Your task to perform on an android device: Turn off the flashlight Image 0: 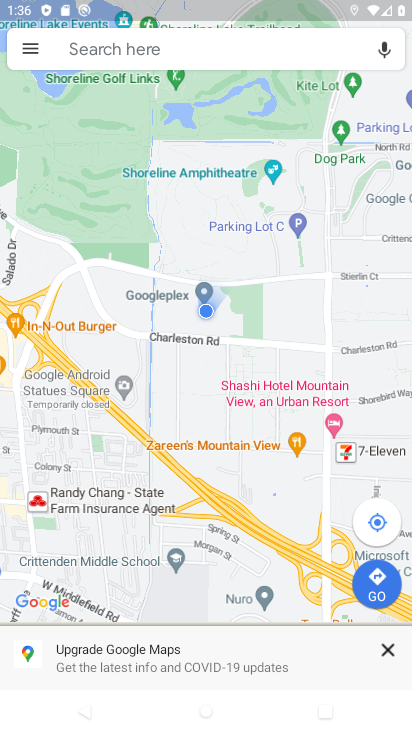
Step 0: press home button
Your task to perform on an android device: Turn off the flashlight Image 1: 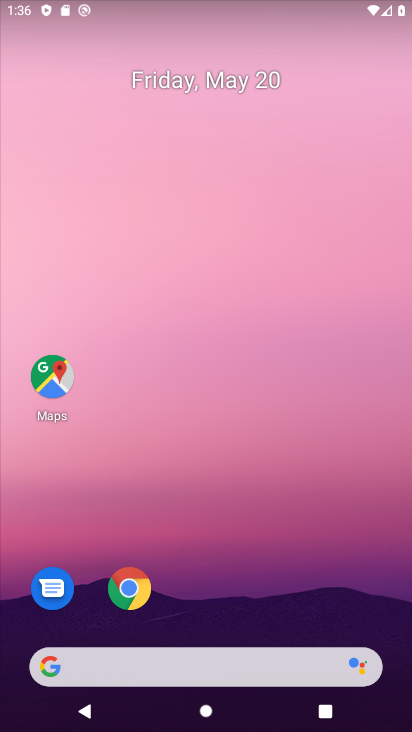
Step 1: task complete